Your task to perform on an android device: change text size in settings app Image 0: 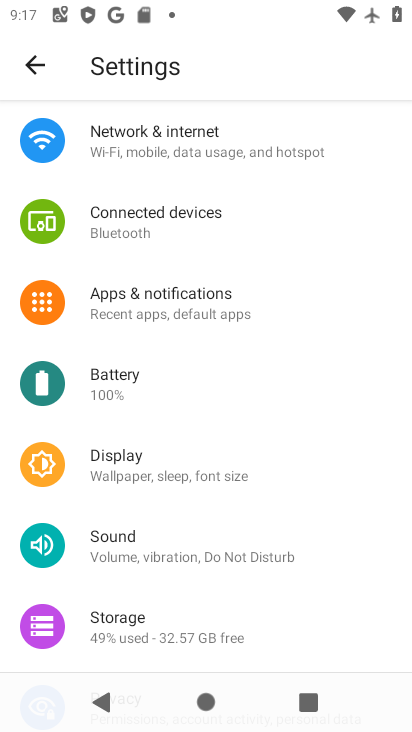
Step 0: click (147, 461)
Your task to perform on an android device: change text size in settings app Image 1: 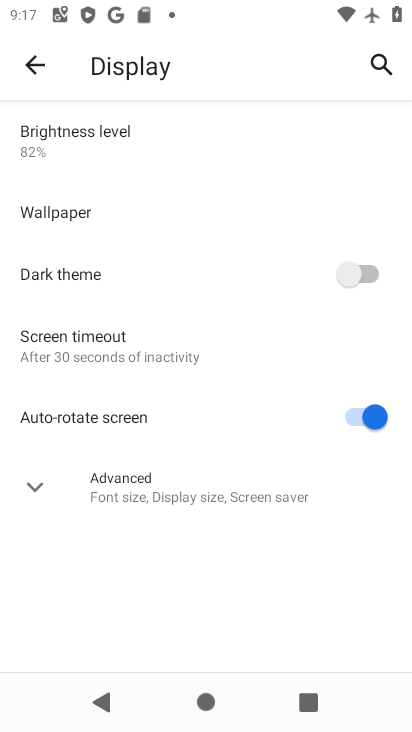
Step 1: click (160, 522)
Your task to perform on an android device: change text size in settings app Image 2: 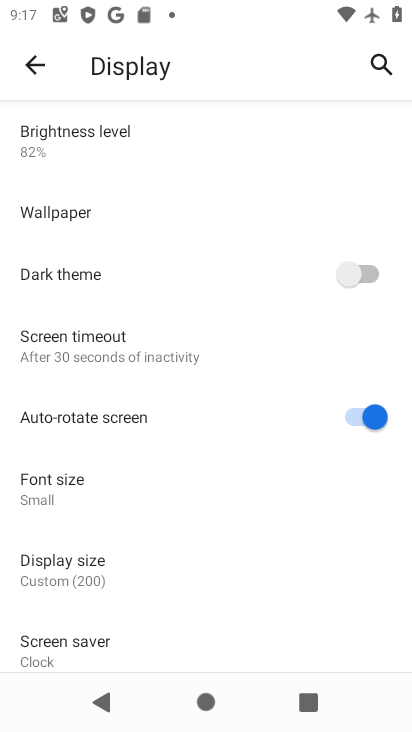
Step 2: click (160, 522)
Your task to perform on an android device: change text size in settings app Image 3: 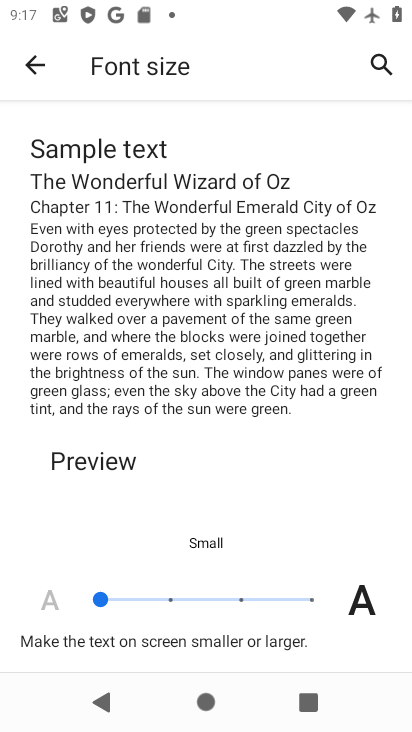
Step 3: click (179, 599)
Your task to perform on an android device: change text size in settings app Image 4: 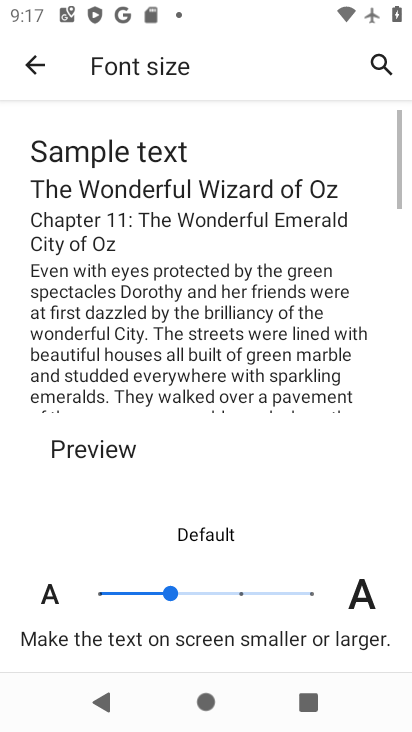
Step 4: task complete